Your task to perform on an android device: Play the last video I watched on Youtube Image 0: 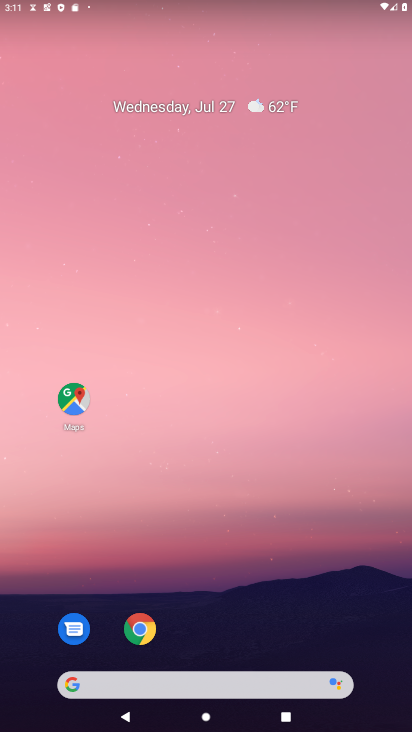
Step 0: drag from (187, 684) to (221, 2)
Your task to perform on an android device: Play the last video I watched on Youtube Image 1: 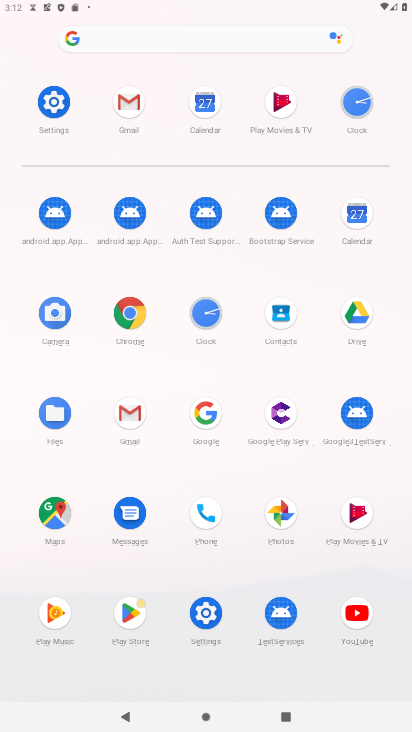
Step 1: click (359, 614)
Your task to perform on an android device: Play the last video I watched on Youtube Image 2: 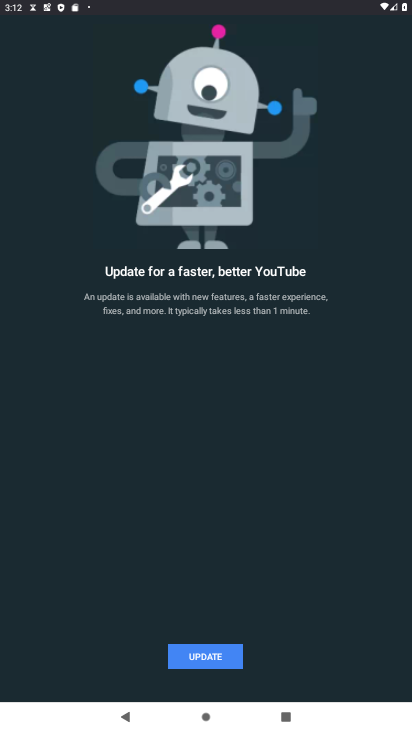
Step 2: click (205, 659)
Your task to perform on an android device: Play the last video I watched on Youtube Image 3: 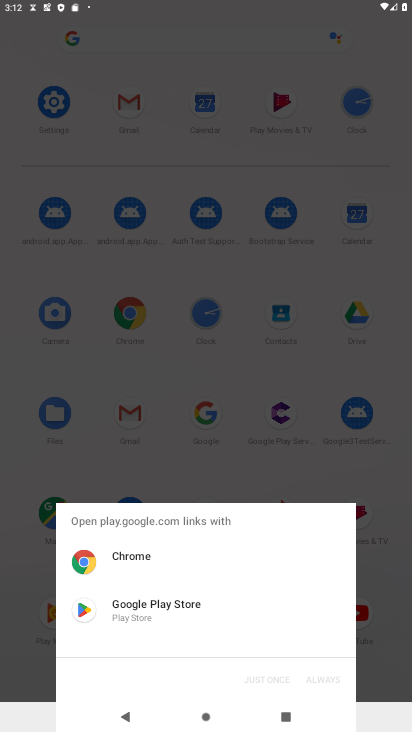
Step 3: click (164, 603)
Your task to perform on an android device: Play the last video I watched on Youtube Image 4: 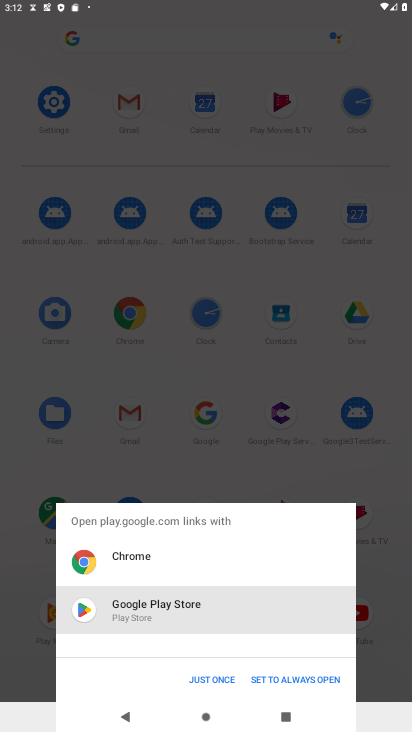
Step 4: click (212, 675)
Your task to perform on an android device: Play the last video I watched on Youtube Image 5: 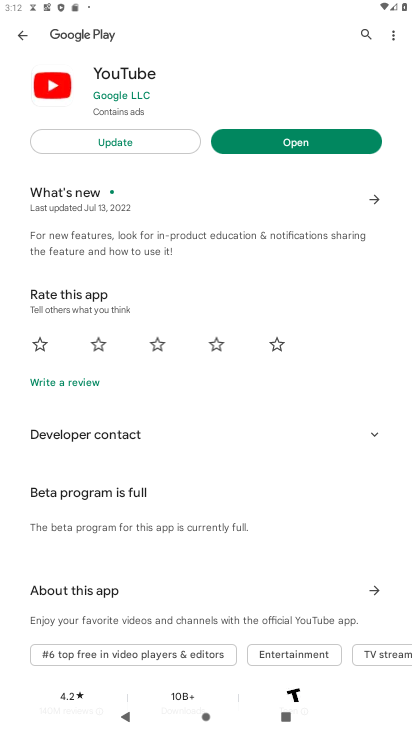
Step 5: click (118, 141)
Your task to perform on an android device: Play the last video I watched on Youtube Image 6: 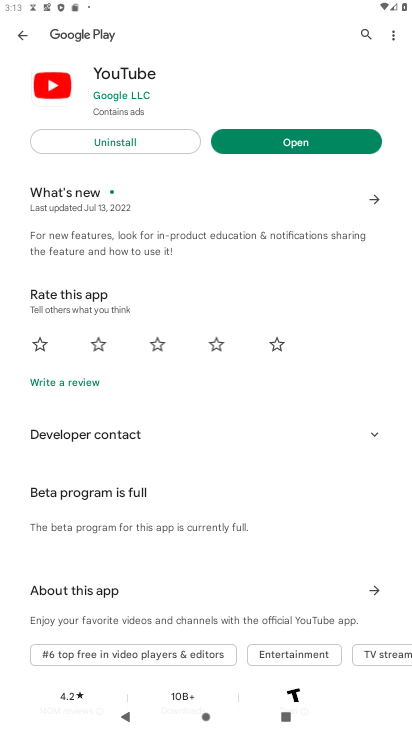
Step 6: click (298, 144)
Your task to perform on an android device: Play the last video I watched on Youtube Image 7: 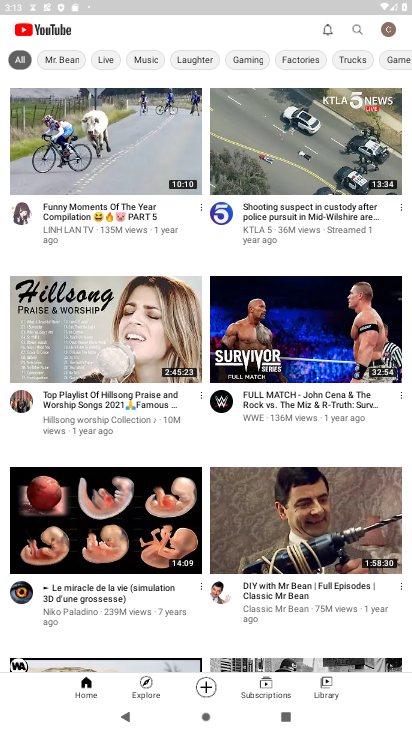
Step 7: click (326, 682)
Your task to perform on an android device: Play the last video I watched on Youtube Image 8: 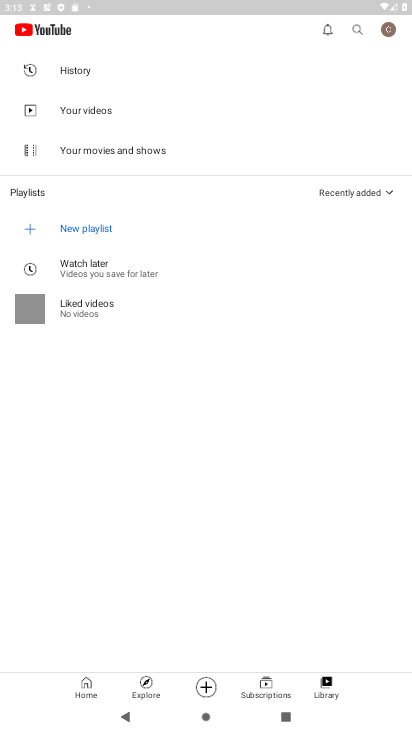
Step 8: click (82, 67)
Your task to perform on an android device: Play the last video I watched on Youtube Image 9: 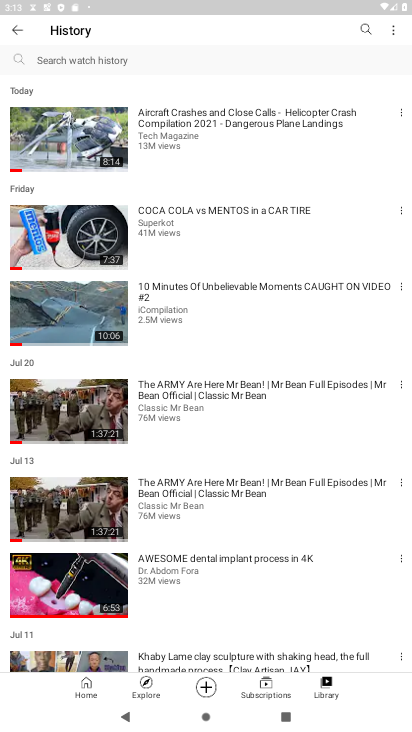
Step 9: click (110, 131)
Your task to perform on an android device: Play the last video I watched on Youtube Image 10: 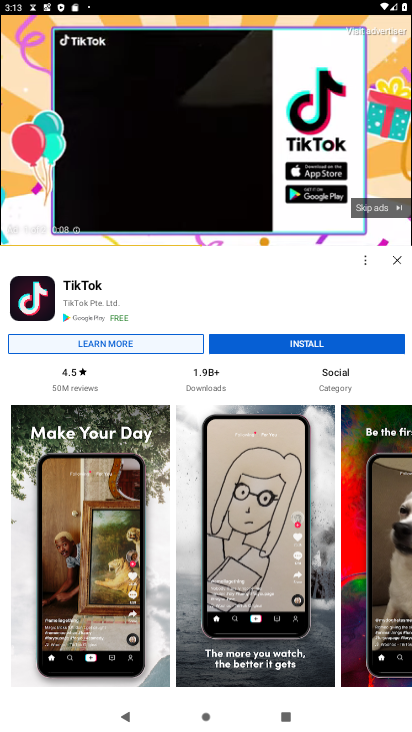
Step 10: click (374, 208)
Your task to perform on an android device: Play the last video I watched on Youtube Image 11: 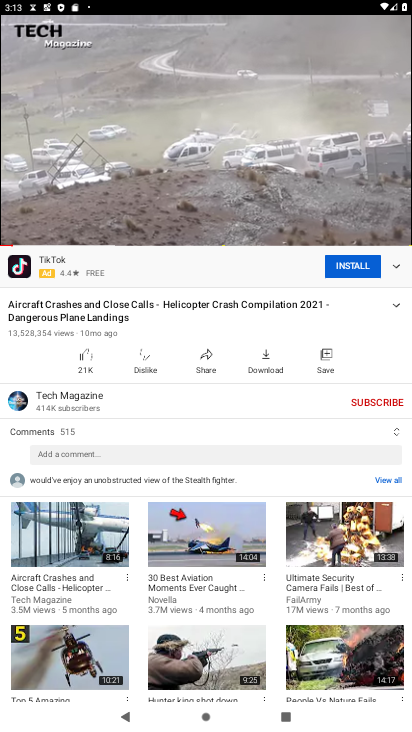
Step 11: click (204, 123)
Your task to perform on an android device: Play the last video I watched on Youtube Image 12: 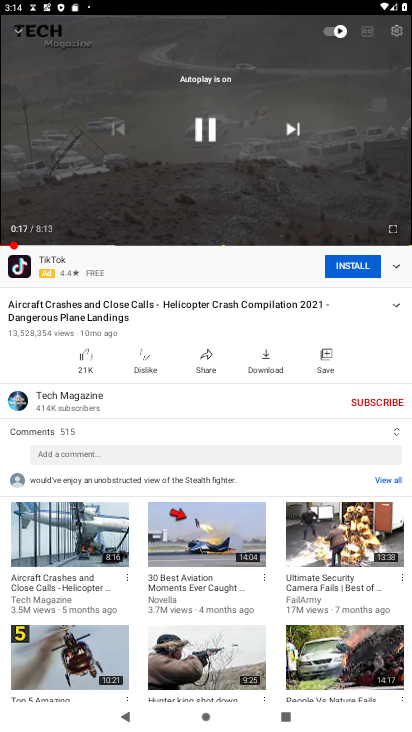
Step 12: click (204, 123)
Your task to perform on an android device: Play the last video I watched on Youtube Image 13: 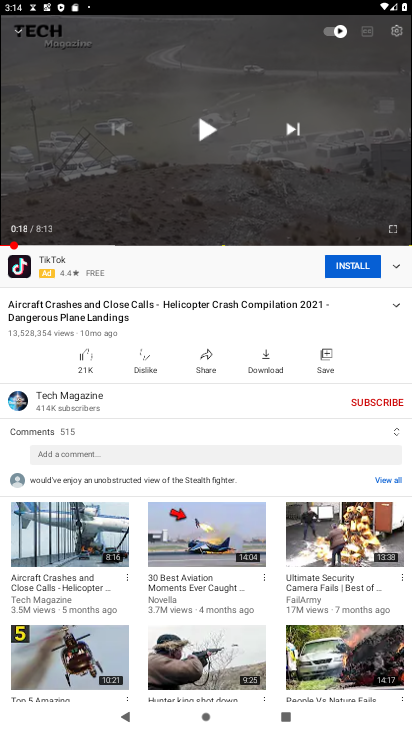
Step 13: task complete